Your task to perform on an android device: visit the assistant section in the google photos Image 0: 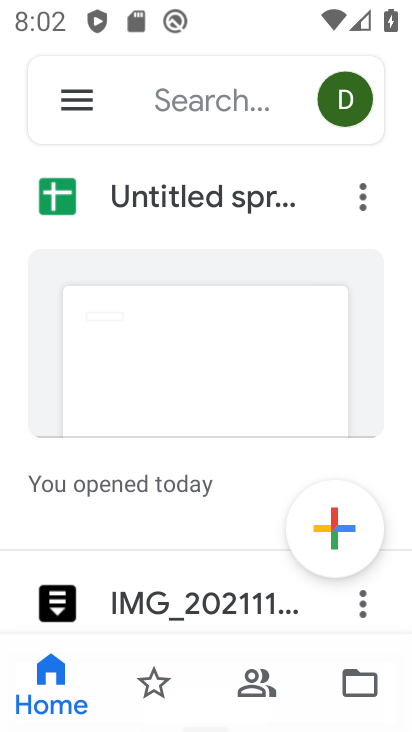
Step 0: press home button
Your task to perform on an android device: visit the assistant section in the google photos Image 1: 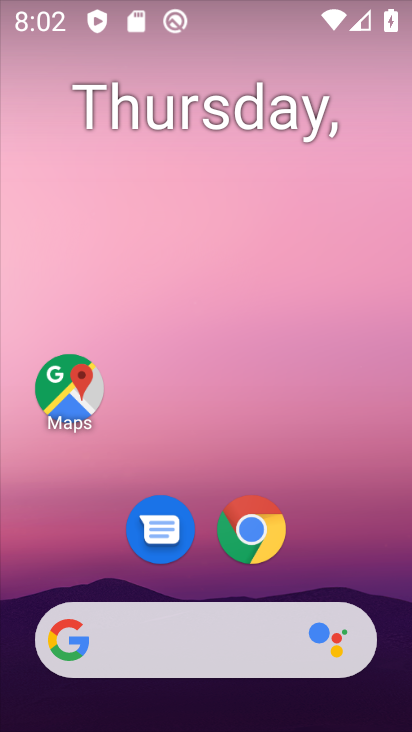
Step 1: drag from (190, 645) to (328, 121)
Your task to perform on an android device: visit the assistant section in the google photos Image 2: 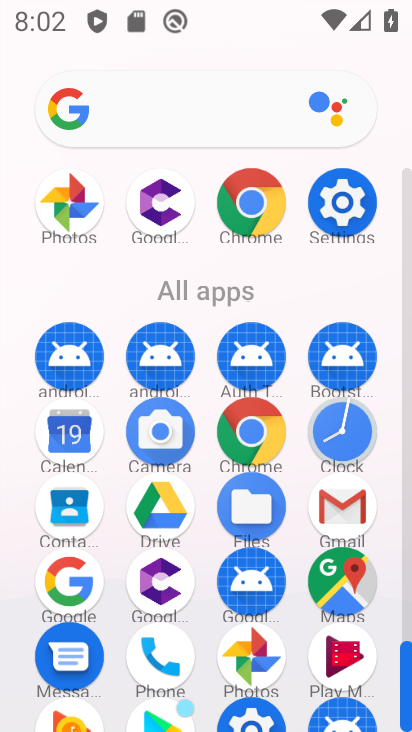
Step 2: drag from (198, 598) to (279, 287)
Your task to perform on an android device: visit the assistant section in the google photos Image 3: 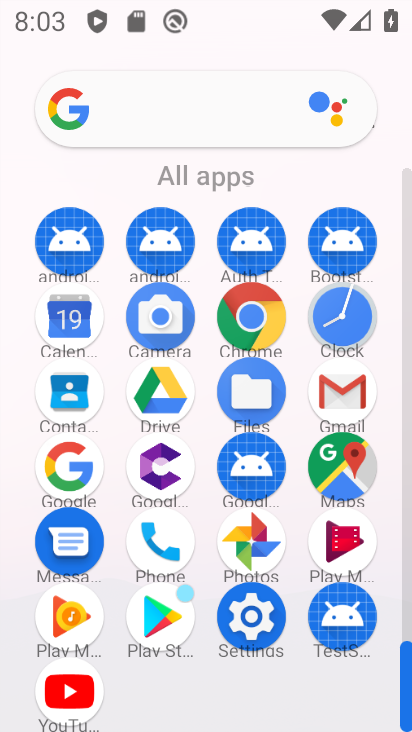
Step 3: click (258, 544)
Your task to perform on an android device: visit the assistant section in the google photos Image 4: 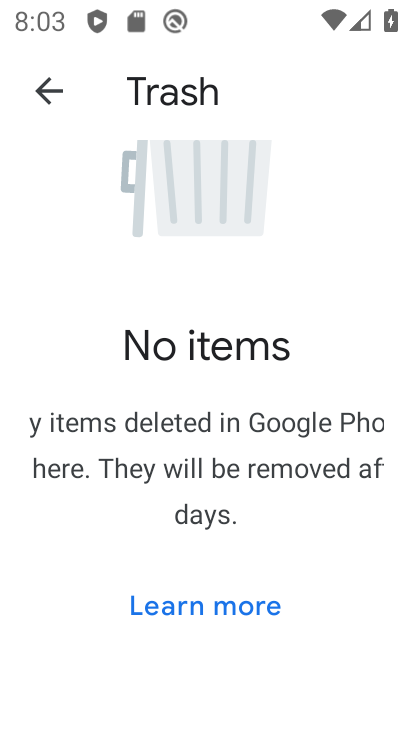
Step 4: click (52, 91)
Your task to perform on an android device: visit the assistant section in the google photos Image 5: 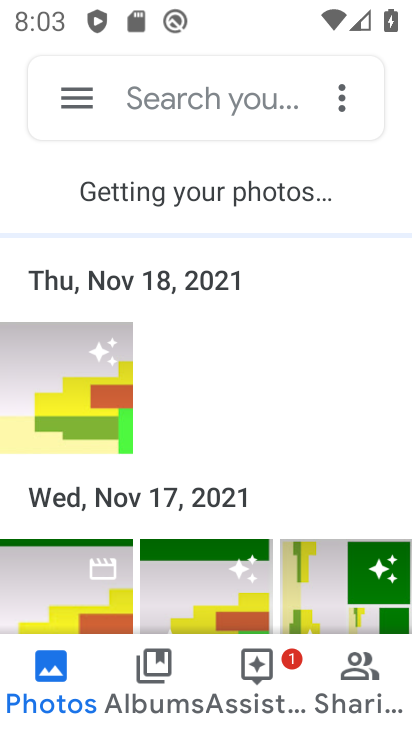
Step 5: click (263, 681)
Your task to perform on an android device: visit the assistant section in the google photos Image 6: 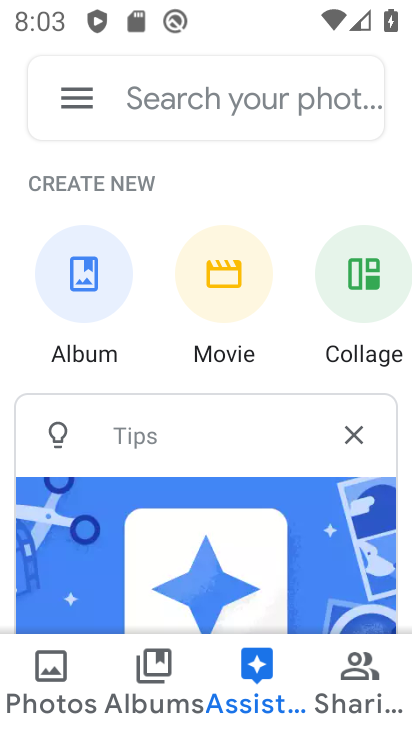
Step 6: task complete